Your task to perform on an android device: empty trash in the gmail app Image 0: 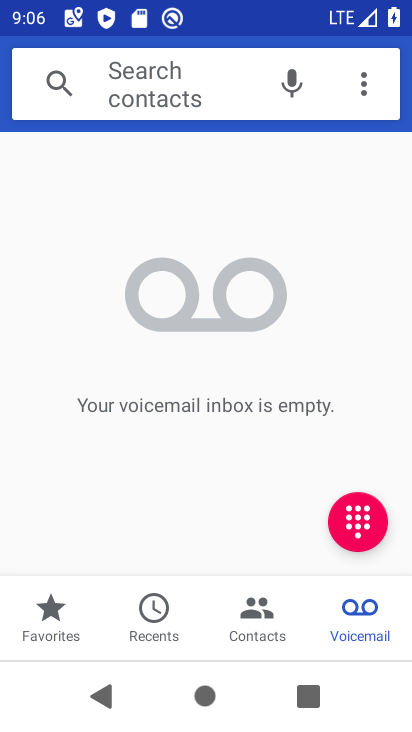
Step 0: press back button
Your task to perform on an android device: empty trash in the gmail app Image 1: 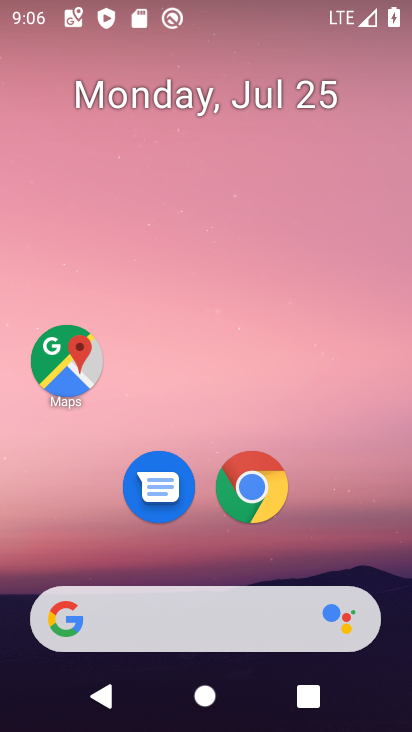
Step 1: drag from (210, 560) to (323, 32)
Your task to perform on an android device: empty trash in the gmail app Image 2: 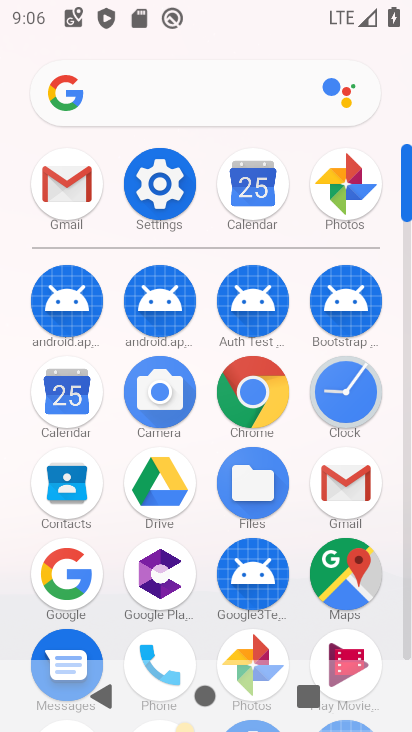
Step 2: click (55, 175)
Your task to perform on an android device: empty trash in the gmail app Image 3: 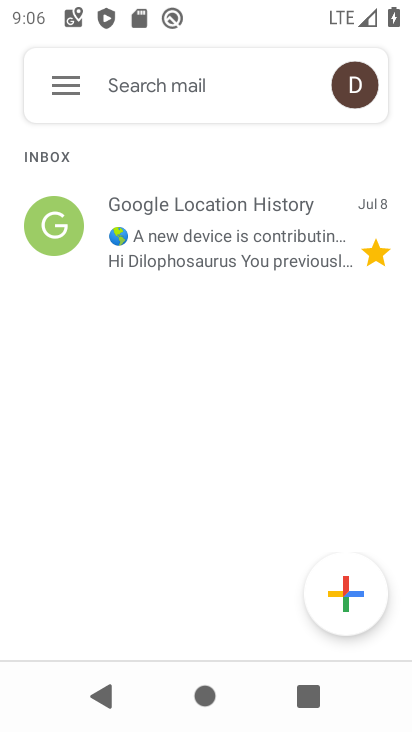
Step 3: click (53, 77)
Your task to perform on an android device: empty trash in the gmail app Image 4: 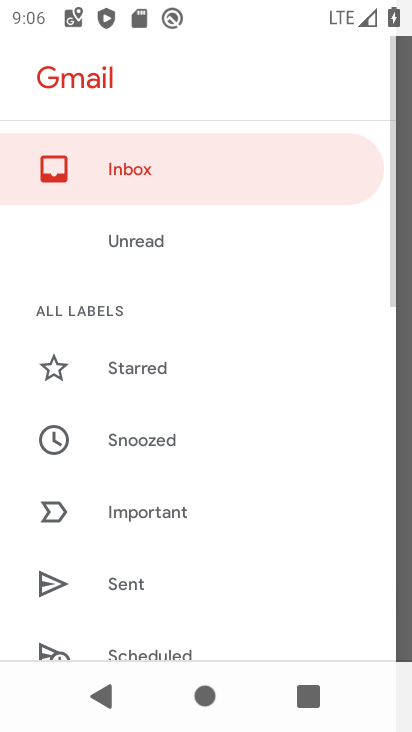
Step 4: drag from (156, 617) to (197, 29)
Your task to perform on an android device: empty trash in the gmail app Image 5: 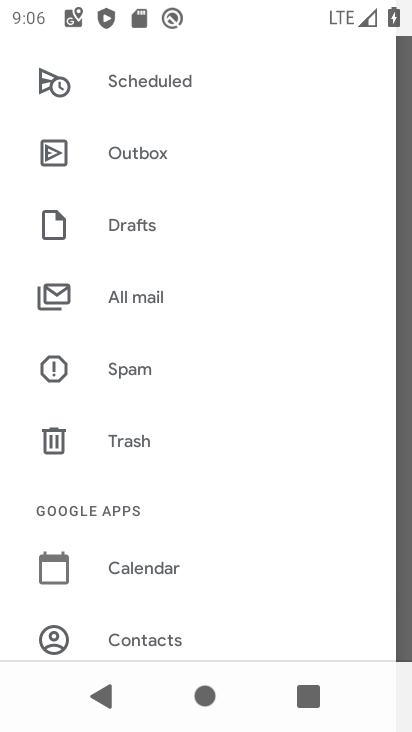
Step 5: click (156, 436)
Your task to perform on an android device: empty trash in the gmail app Image 6: 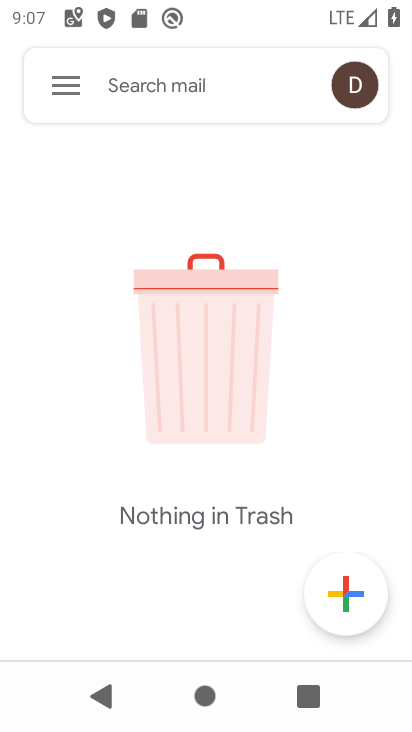
Step 6: task complete